Your task to perform on an android device: open app "Facebook" (install if not already installed) and go to login screen Image 0: 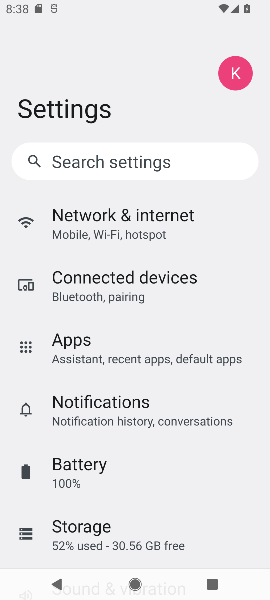
Step 0: press home button
Your task to perform on an android device: open app "Facebook" (install if not already installed) and go to login screen Image 1: 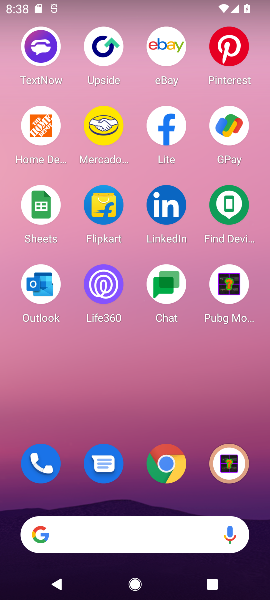
Step 1: drag from (127, 454) to (115, 7)
Your task to perform on an android device: open app "Facebook" (install if not already installed) and go to login screen Image 2: 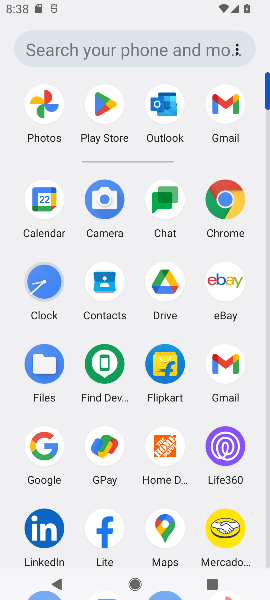
Step 2: click (105, 107)
Your task to perform on an android device: open app "Facebook" (install if not already installed) and go to login screen Image 3: 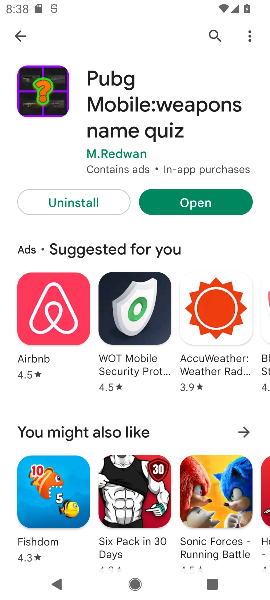
Step 3: click (26, 22)
Your task to perform on an android device: open app "Facebook" (install if not already installed) and go to login screen Image 4: 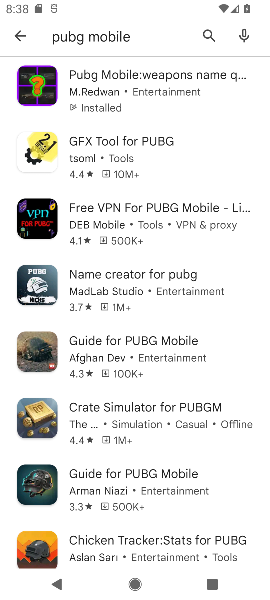
Step 4: click (18, 34)
Your task to perform on an android device: open app "Facebook" (install if not already installed) and go to login screen Image 5: 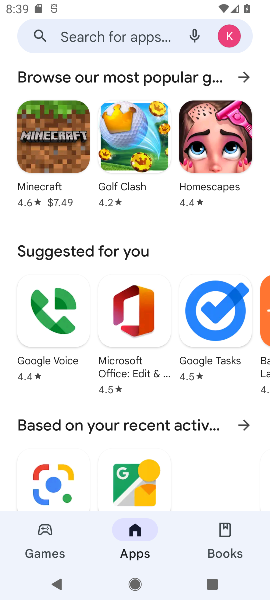
Step 5: click (108, 37)
Your task to perform on an android device: open app "Facebook" (install if not already installed) and go to login screen Image 6: 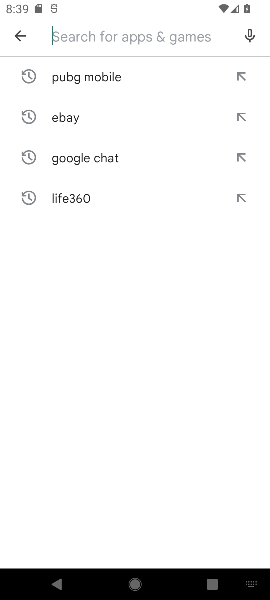
Step 6: type "Facebook"
Your task to perform on an android device: open app "Facebook" (install if not already installed) and go to login screen Image 7: 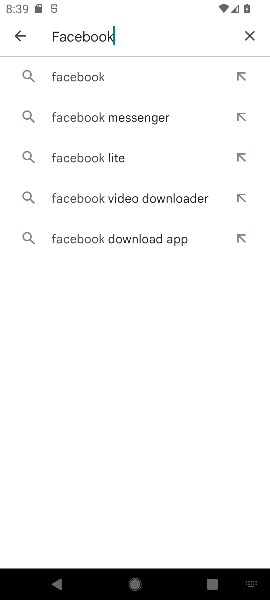
Step 7: click (76, 77)
Your task to perform on an android device: open app "Facebook" (install if not already installed) and go to login screen Image 8: 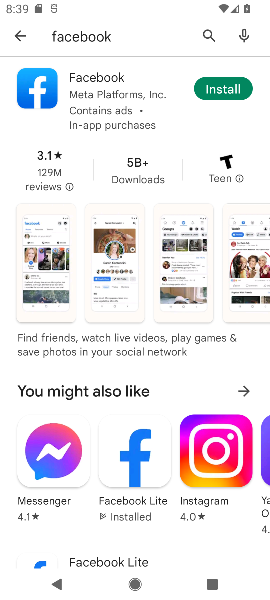
Step 8: click (224, 95)
Your task to perform on an android device: open app "Facebook" (install if not already installed) and go to login screen Image 9: 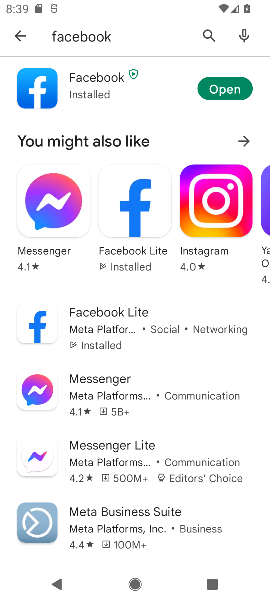
Step 9: click (224, 95)
Your task to perform on an android device: open app "Facebook" (install if not already installed) and go to login screen Image 10: 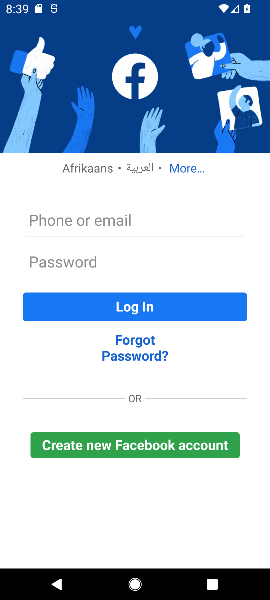
Step 10: task complete